Your task to perform on an android device: toggle data saver in the chrome app Image 0: 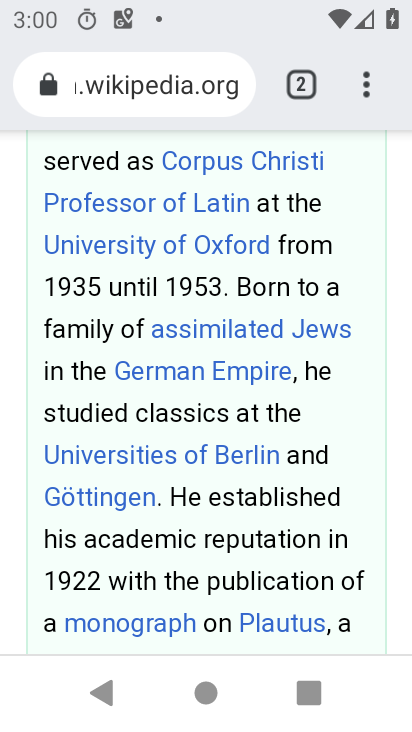
Step 0: drag from (182, 562) to (187, 278)
Your task to perform on an android device: toggle data saver in the chrome app Image 1: 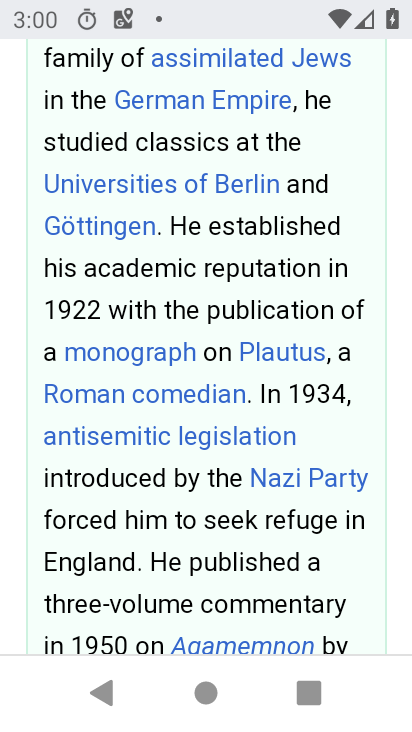
Step 1: drag from (192, 183) to (212, 717)
Your task to perform on an android device: toggle data saver in the chrome app Image 2: 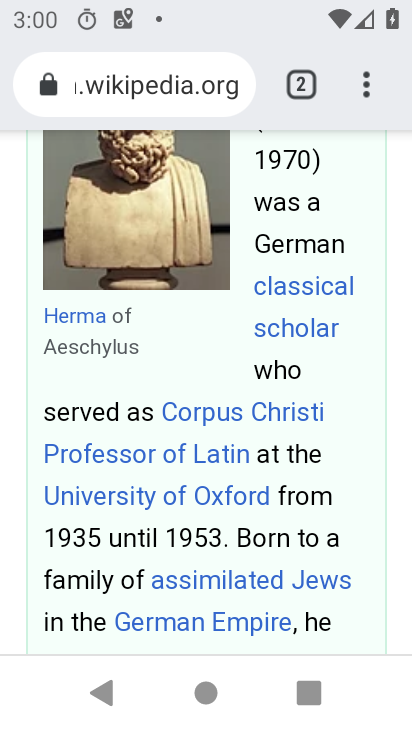
Step 2: click (361, 79)
Your task to perform on an android device: toggle data saver in the chrome app Image 3: 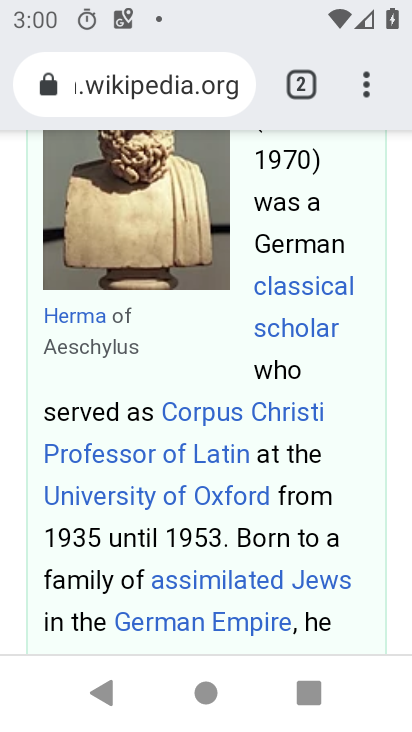
Step 3: click (374, 76)
Your task to perform on an android device: toggle data saver in the chrome app Image 4: 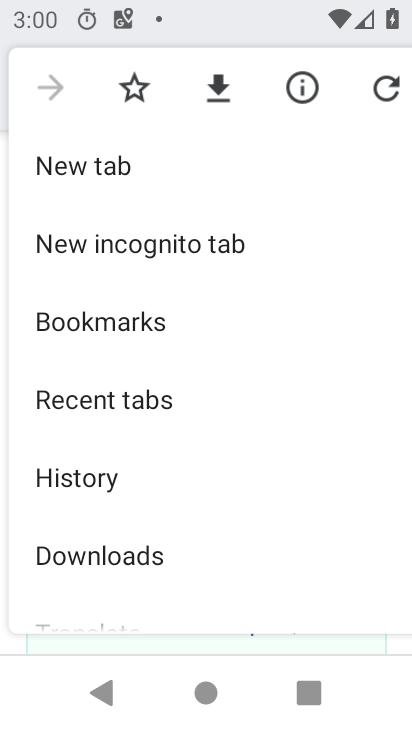
Step 4: drag from (187, 513) to (195, 228)
Your task to perform on an android device: toggle data saver in the chrome app Image 5: 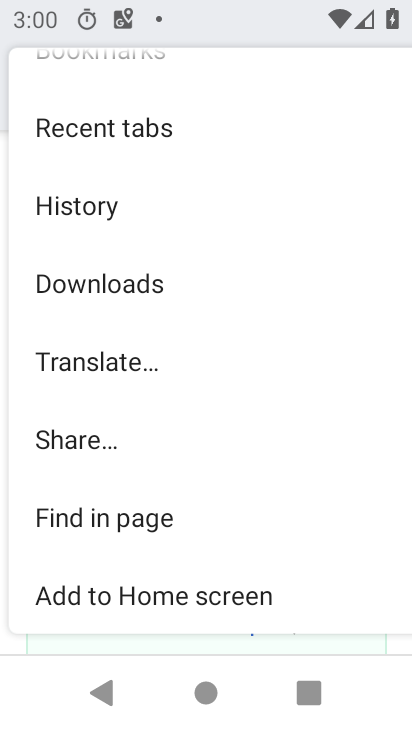
Step 5: drag from (149, 456) to (196, 190)
Your task to perform on an android device: toggle data saver in the chrome app Image 6: 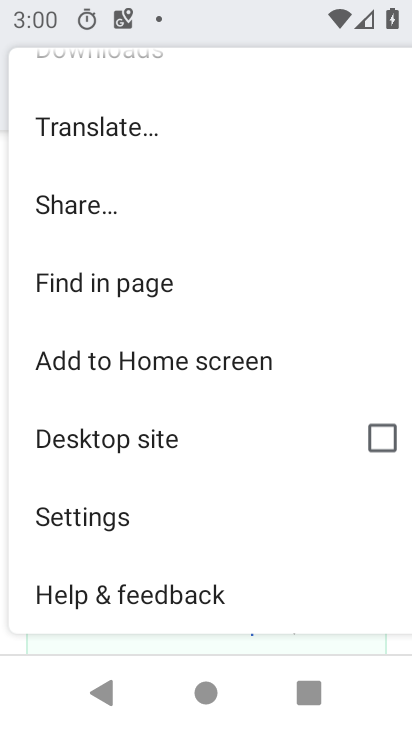
Step 6: click (101, 513)
Your task to perform on an android device: toggle data saver in the chrome app Image 7: 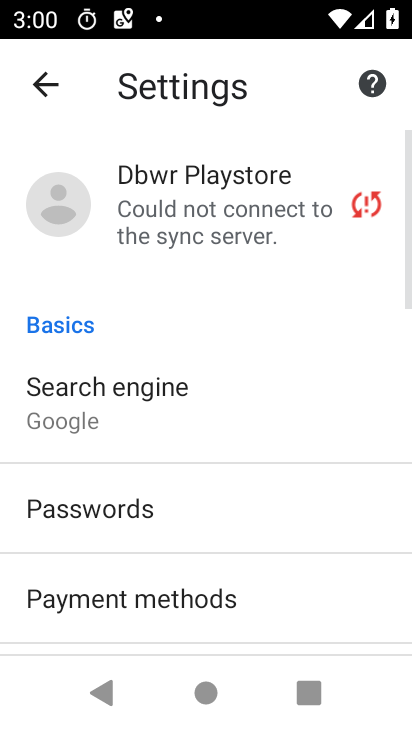
Step 7: drag from (167, 561) to (254, 215)
Your task to perform on an android device: toggle data saver in the chrome app Image 8: 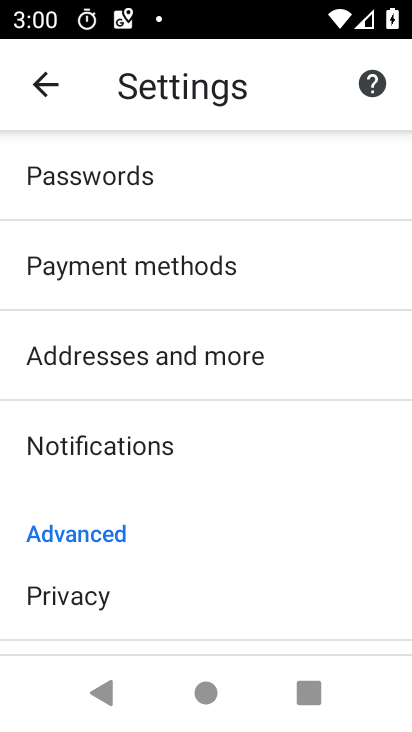
Step 8: drag from (185, 570) to (218, 222)
Your task to perform on an android device: toggle data saver in the chrome app Image 9: 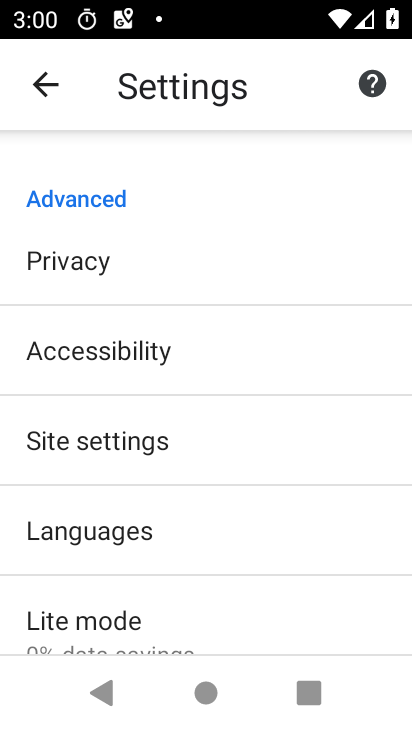
Step 9: drag from (152, 561) to (195, 199)
Your task to perform on an android device: toggle data saver in the chrome app Image 10: 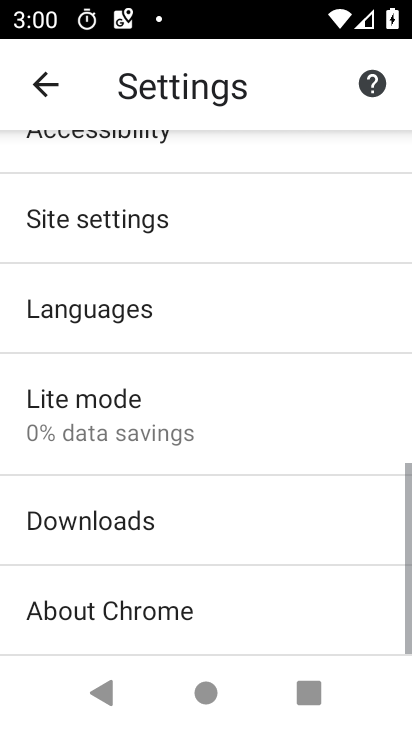
Step 10: click (125, 416)
Your task to perform on an android device: toggle data saver in the chrome app Image 11: 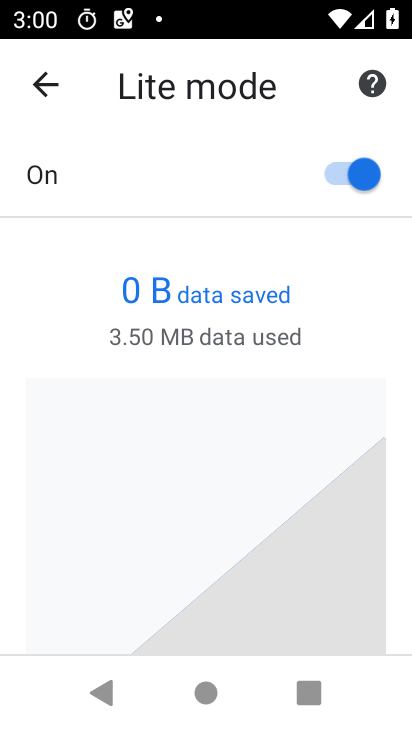
Step 11: click (362, 182)
Your task to perform on an android device: toggle data saver in the chrome app Image 12: 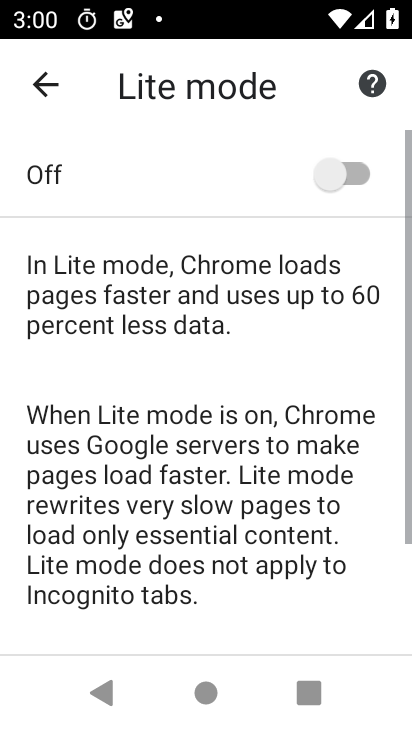
Step 12: task complete